Your task to perform on an android device: Open Google Image 0: 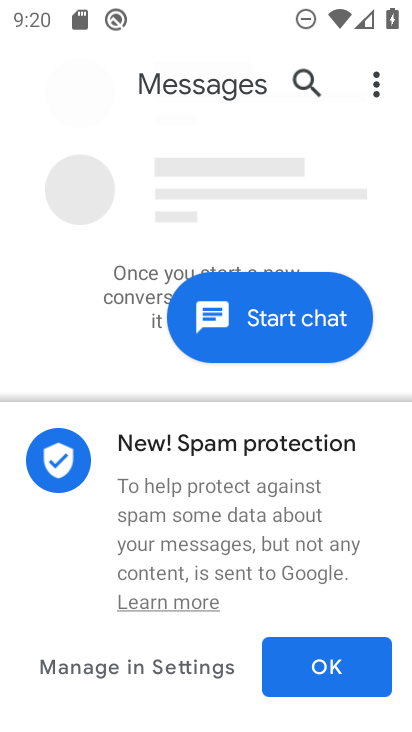
Step 0: press home button
Your task to perform on an android device: Open Google Image 1: 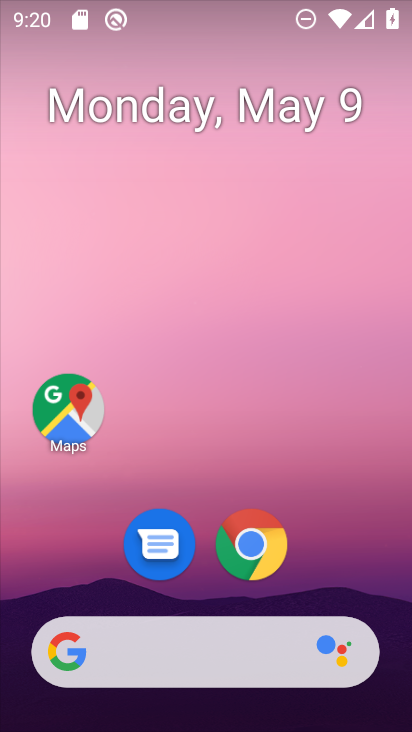
Step 1: click (147, 646)
Your task to perform on an android device: Open Google Image 2: 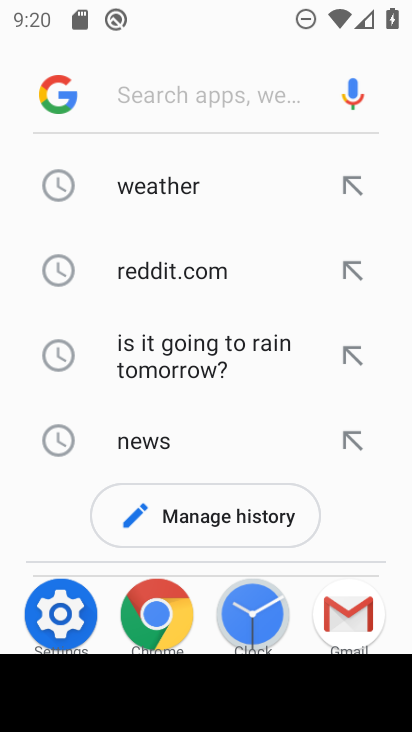
Step 2: task complete